Your task to perform on an android device: find photos in the google photos app Image 0: 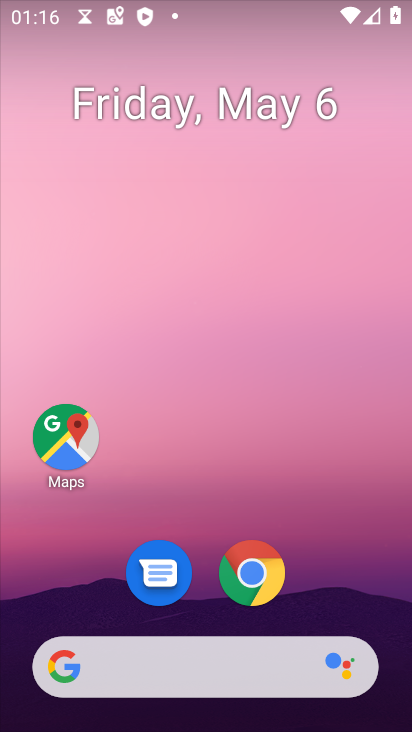
Step 0: drag from (318, 566) to (338, 244)
Your task to perform on an android device: find photos in the google photos app Image 1: 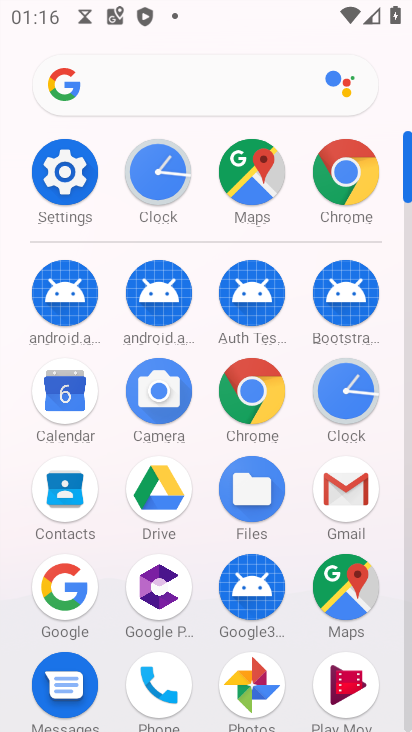
Step 1: click (240, 688)
Your task to perform on an android device: find photos in the google photos app Image 2: 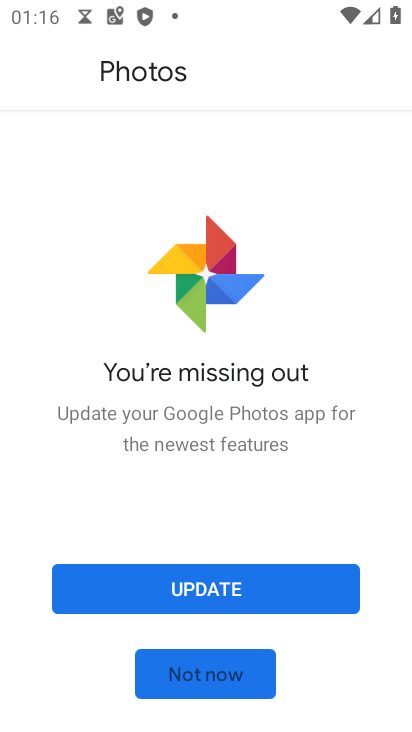
Step 2: click (231, 681)
Your task to perform on an android device: find photos in the google photos app Image 3: 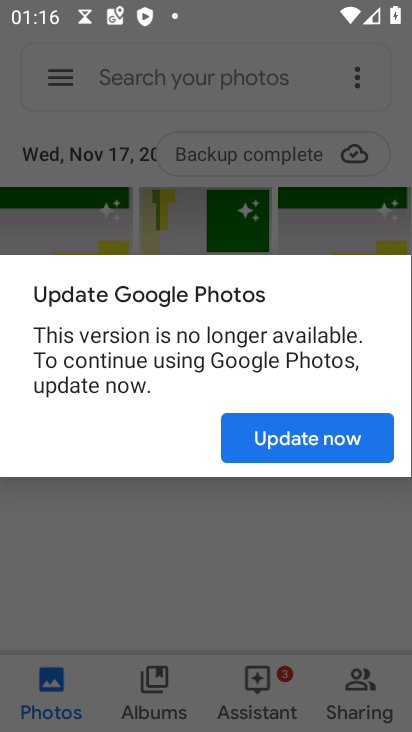
Step 3: click (342, 421)
Your task to perform on an android device: find photos in the google photos app Image 4: 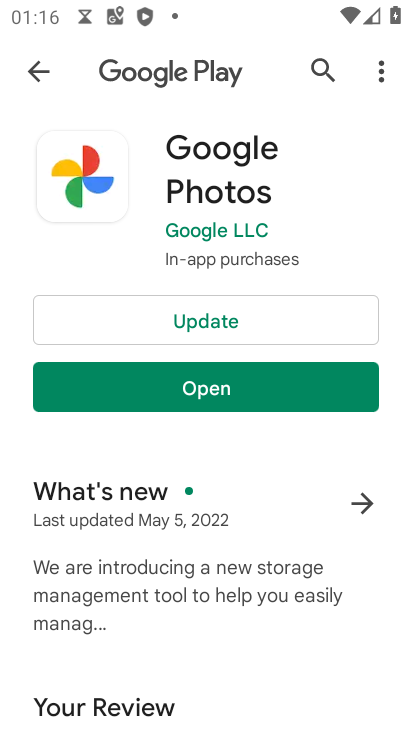
Step 4: press back button
Your task to perform on an android device: find photos in the google photos app Image 5: 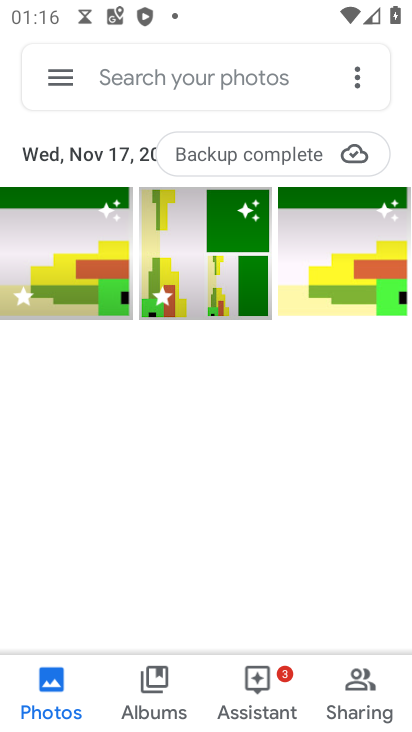
Step 5: click (18, 265)
Your task to perform on an android device: find photos in the google photos app Image 6: 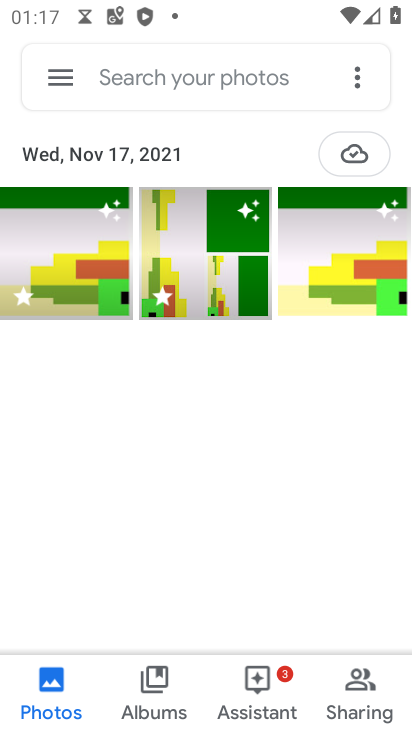
Step 6: task complete